Your task to perform on an android device: turn off wifi Image 0: 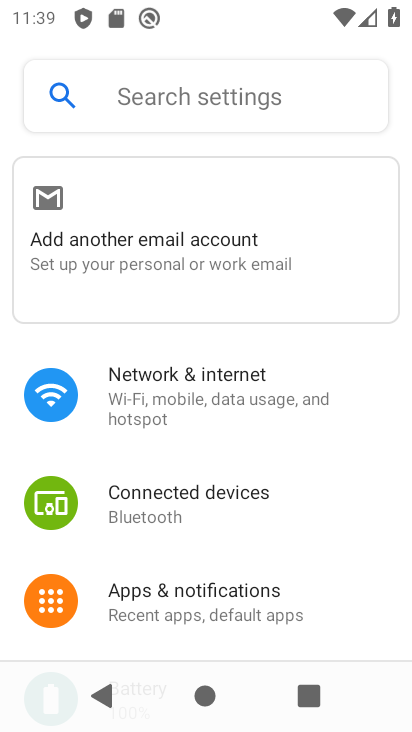
Step 0: click (210, 382)
Your task to perform on an android device: turn off wifi Image 1: 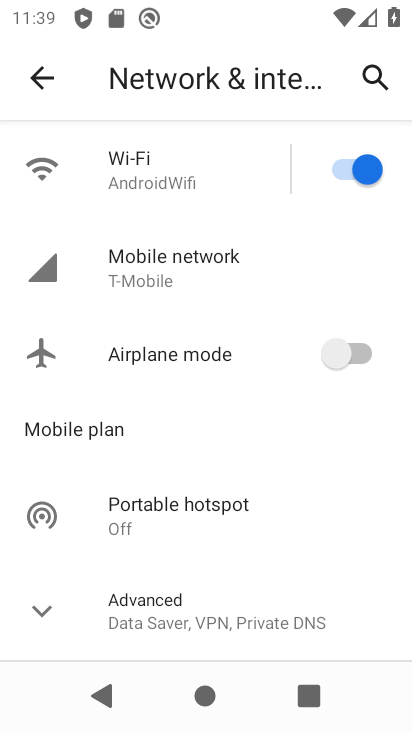
Step 1: click (339, 163)
Your task to perform on an android device: turn off wifi Image 2: 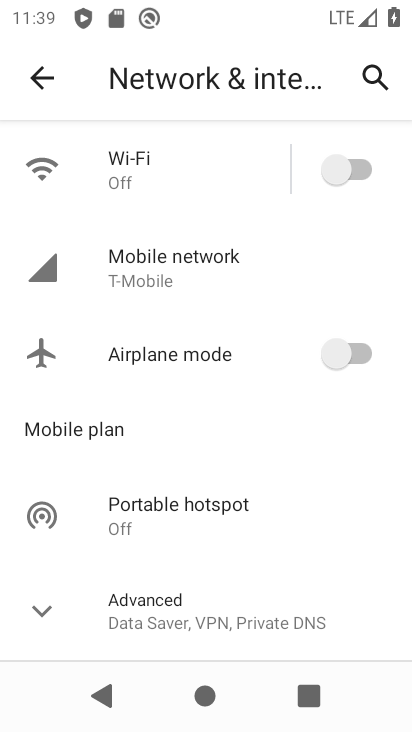
Step 2: task complete